Your task to perform on an android device: open app "ColorNote Notepad Notes" (install if not already installed) and go to login screen Image 0: 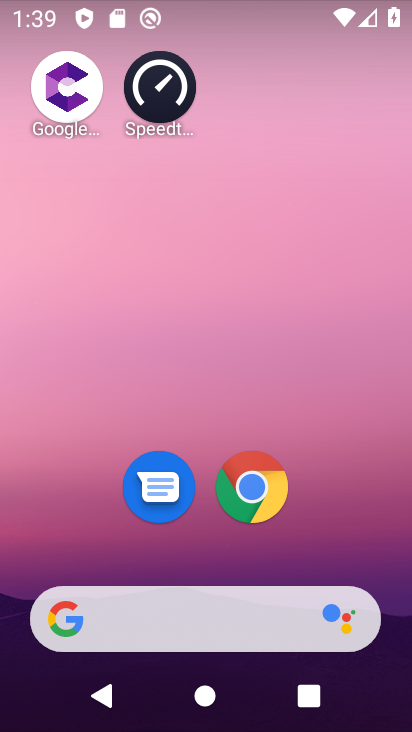
Step 0: drag from (206, 543) to (165, 93)
Your task to perform on an android device: open app "ColorNote Notepad Notes" (install if not already installed) and go to login screen Image 1: 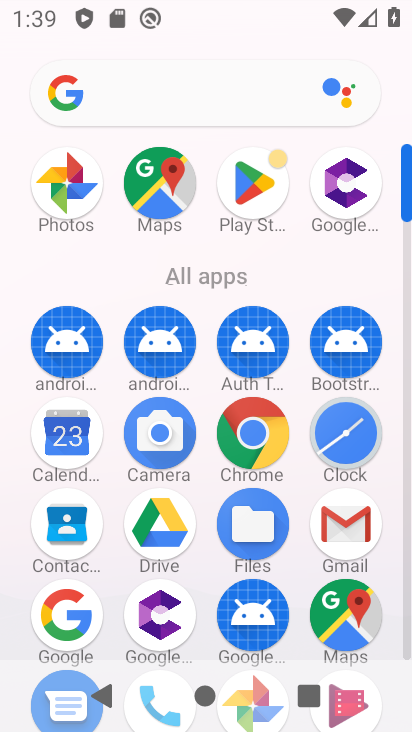
Step 1: click (234, 191)
Your task to perform on an android device: open app "ColorNote Notepad Notes" (install if not already installed) and go to login screen Image 2: 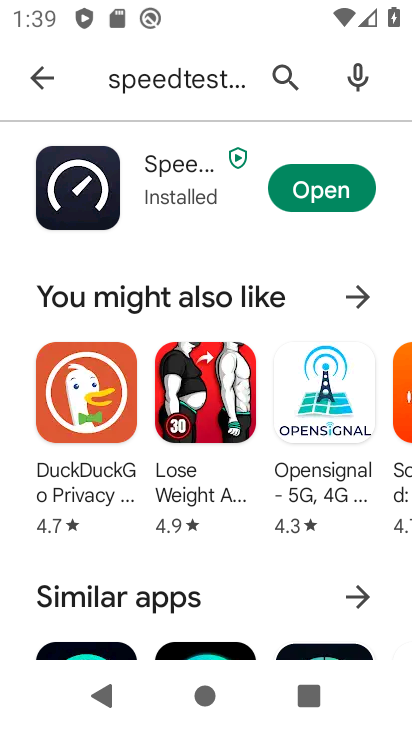
Step 2: click (54, 74)
Your task to perform on an android device: open app "ColorNote Notepad Notes" (install if not already installed) and go to login screen Image 3: 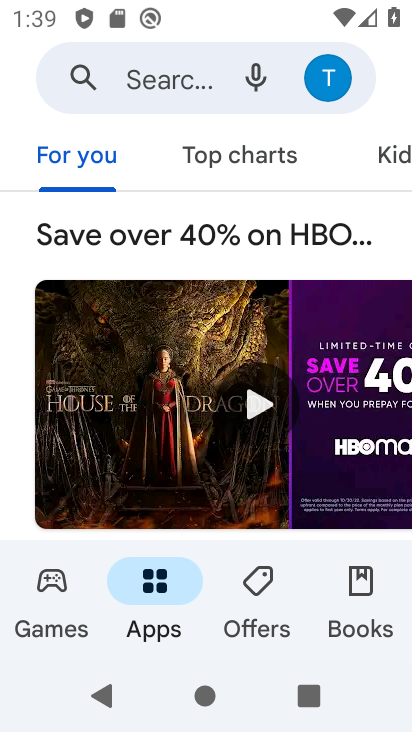
Step 3: click (136, 90)
Your task to perform on an android device: open app "ColorNote Notepad Notes" (install if not already installed) and go to login screen Image 4: 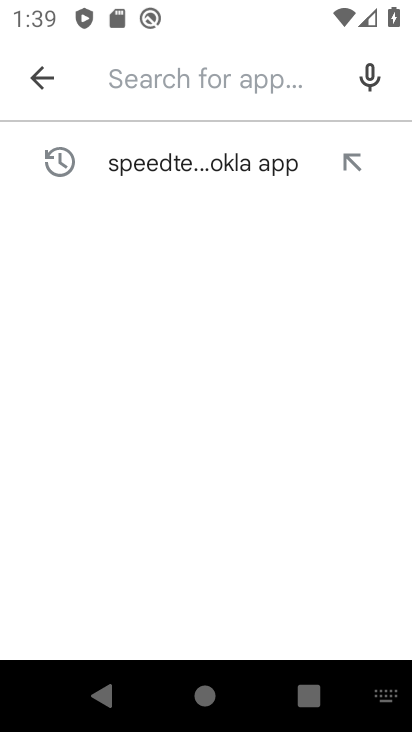
Step 4: type "ColorNote Notepad Notes "
Your task to perform on an android device: open app "ColorNote Notepad Notes" (install if not already installed) and go to login screen Image 5: 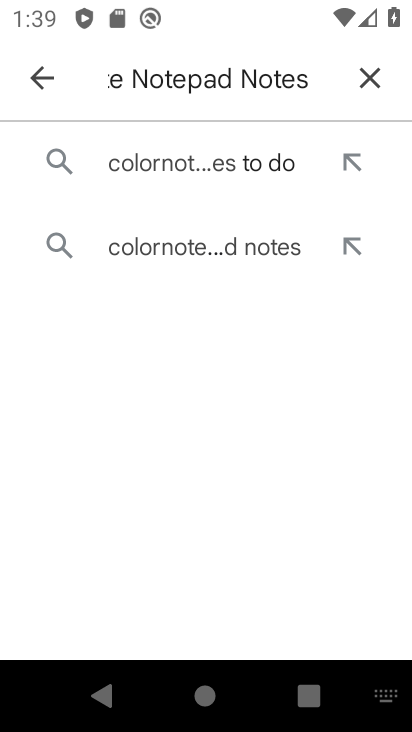
Step 5: click (145, 160)
Your task to perform on an android device: open app "ColorNote Notepad Notes" (install if not already installed) and go to login screen Image 6: 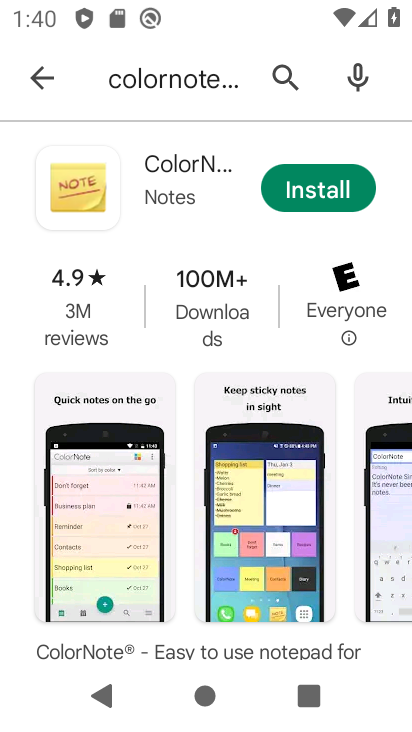
Step 6: click (312, 183)
Your task to perform on an android device: open app "ColorNote Notepad Notes" (install if not already installed) and go to login screen Image 7: 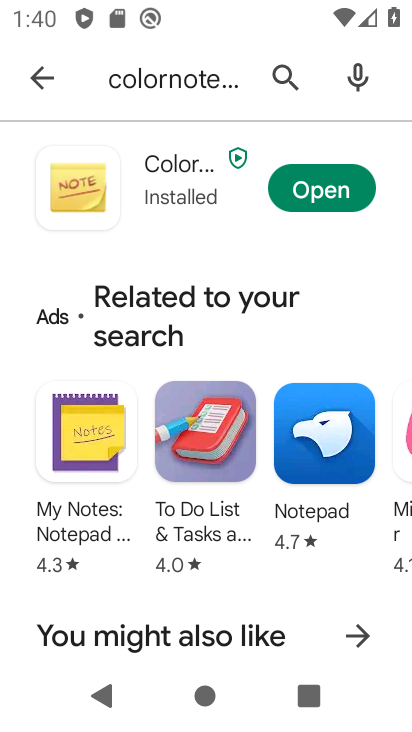
Step 7: click (312, 186)
Your task to perform on an android device: open app "ColorNote Notepad Notes" (install if not already installed) and go to login screen Image 8: 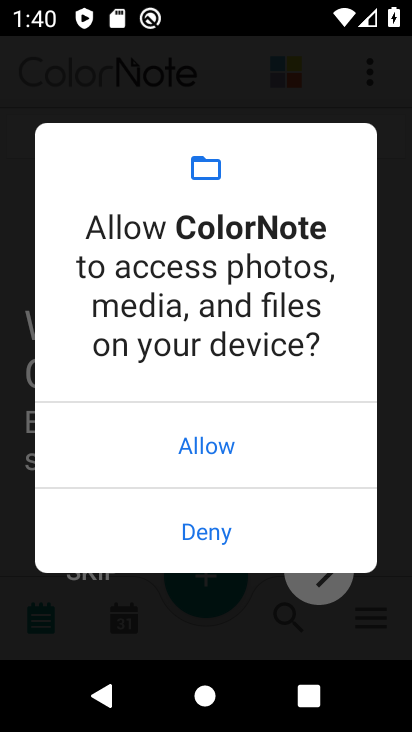
Step 8: click (188, 436)
Your task to perform on an android device: open app "ColorNote Notepad Notes" (install if not already installed) and go to login screen Image 9: 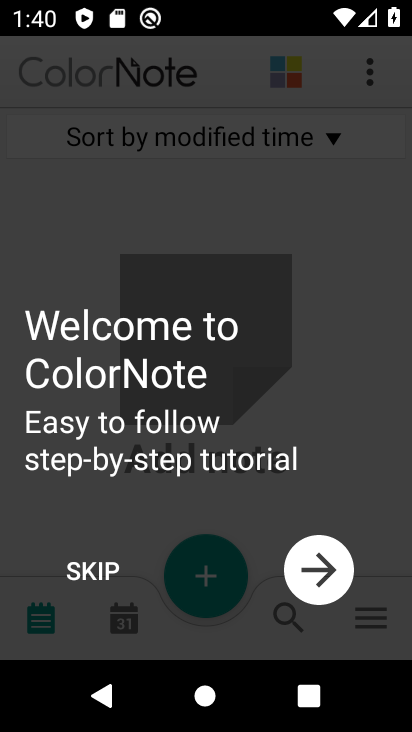
Step 9: task complete